Your task to perform on an android device: delete location history Image 0: 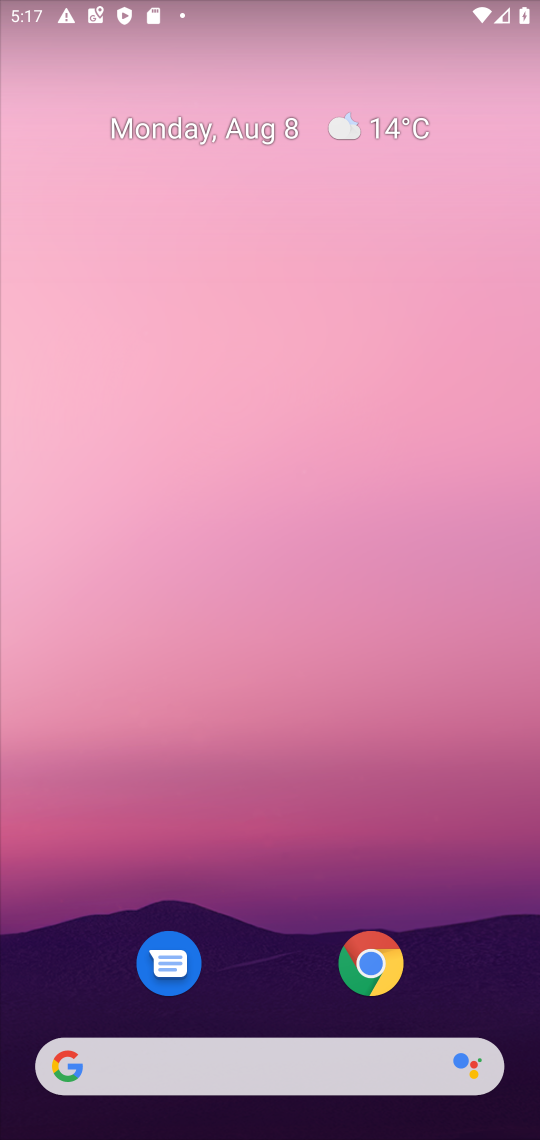
Step 0: drag from (268, 854) to (254, 156)
Your task to perform on an android device: delete location history Image 1: 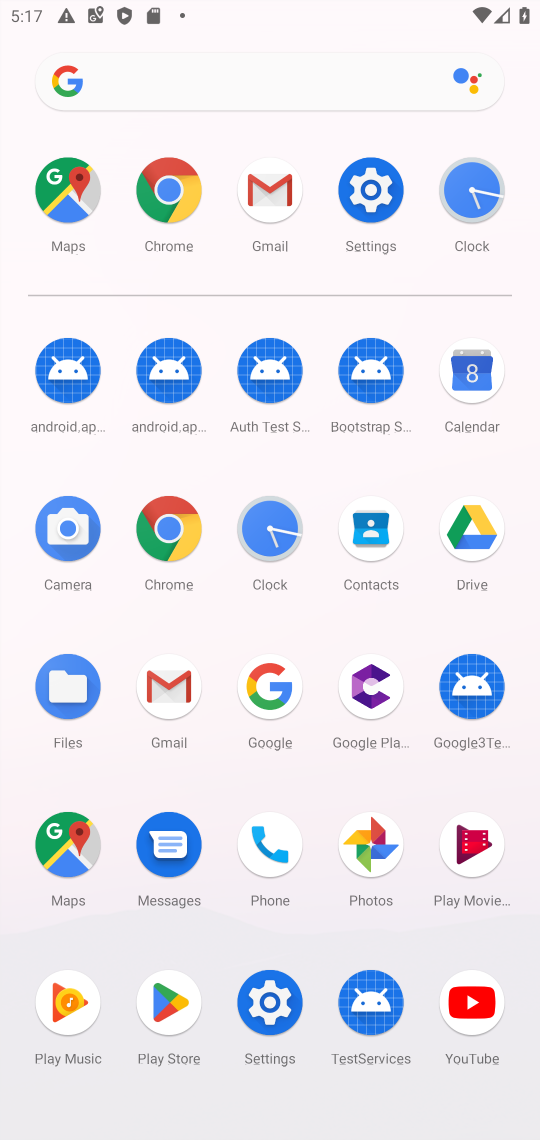
Step 1: click (67, 832)
Your task to perform on an android device: delete location history Image 2: 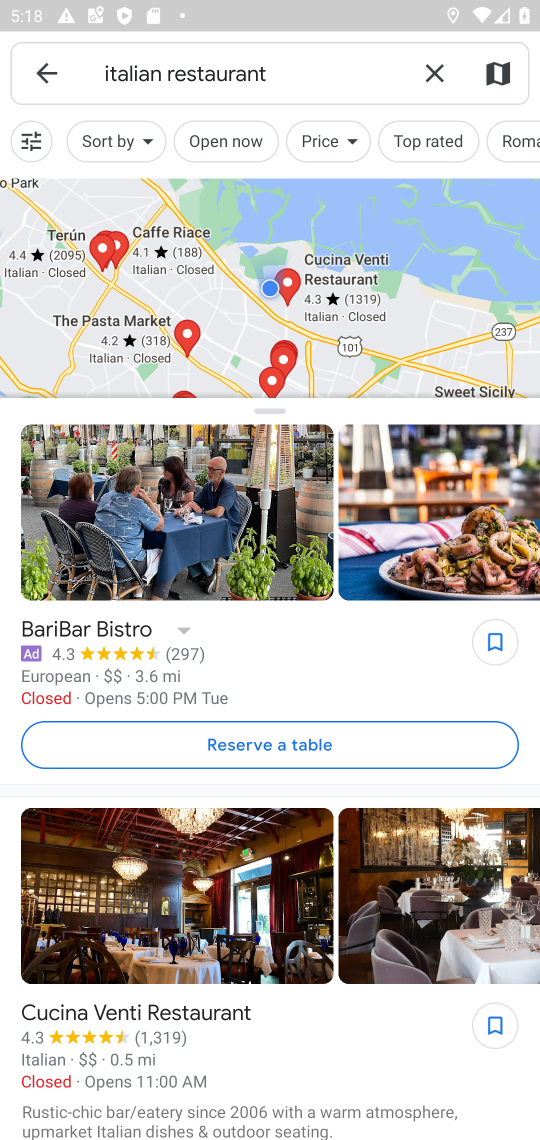
Step 2: click (42, 65)
Your task to perform on an android device: delete location history Image 3: 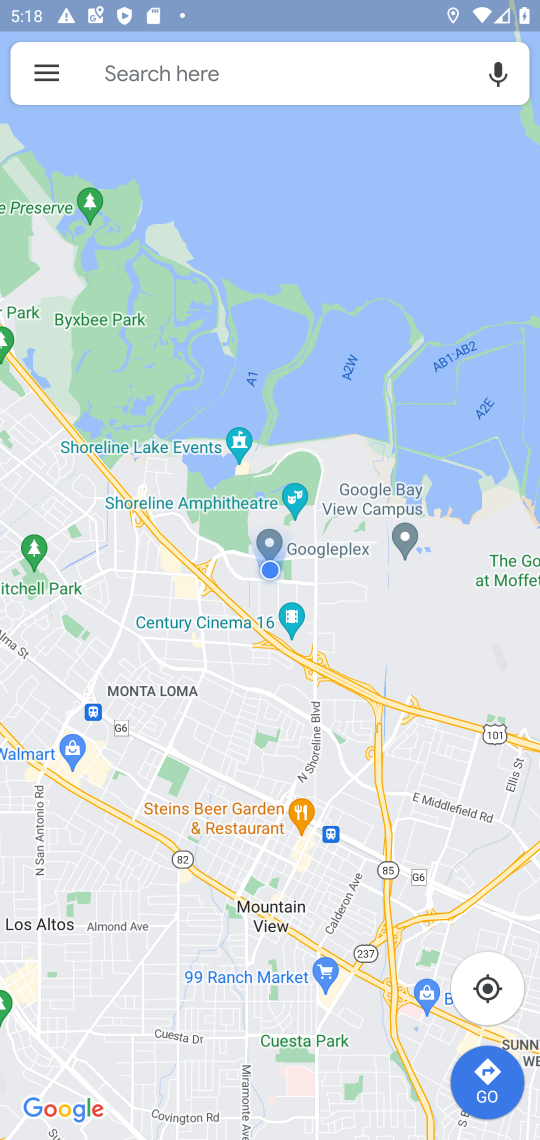
Step 3: click (41, 63)
Your task to perform on an android device: delete location history Image 4: 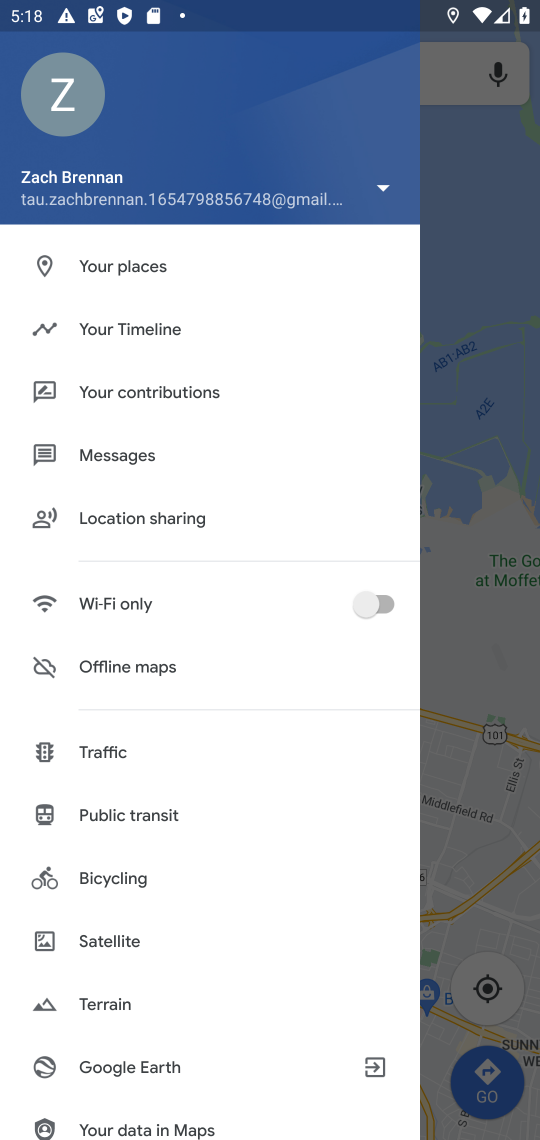
Step 4: click (97, 343)
Your task to perform on an android device: delete location history Image 5: 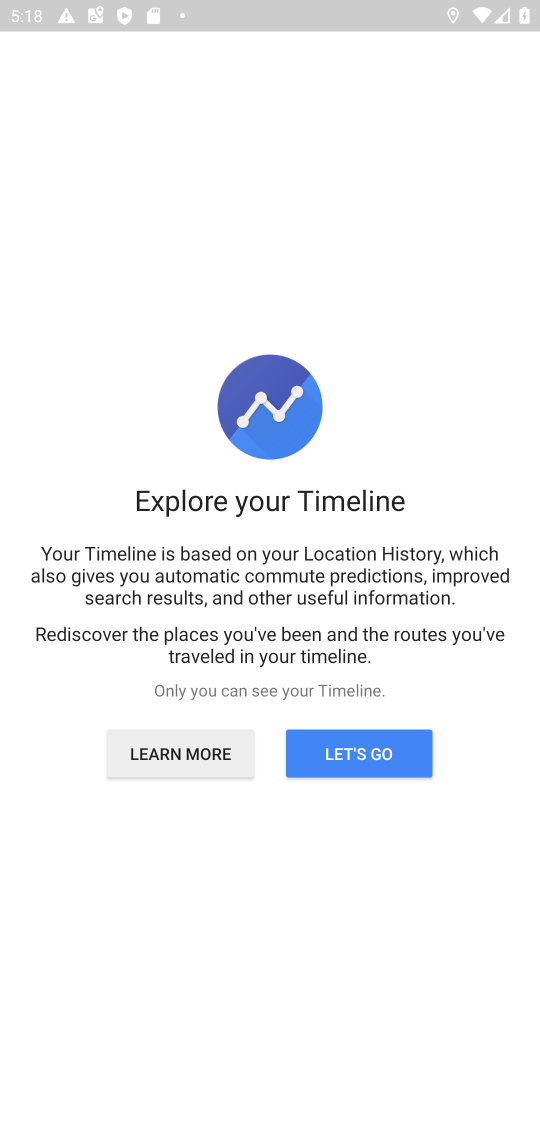
Step 5: click (346, 733)
Your task to perform on an android device: delete location history Image 6: 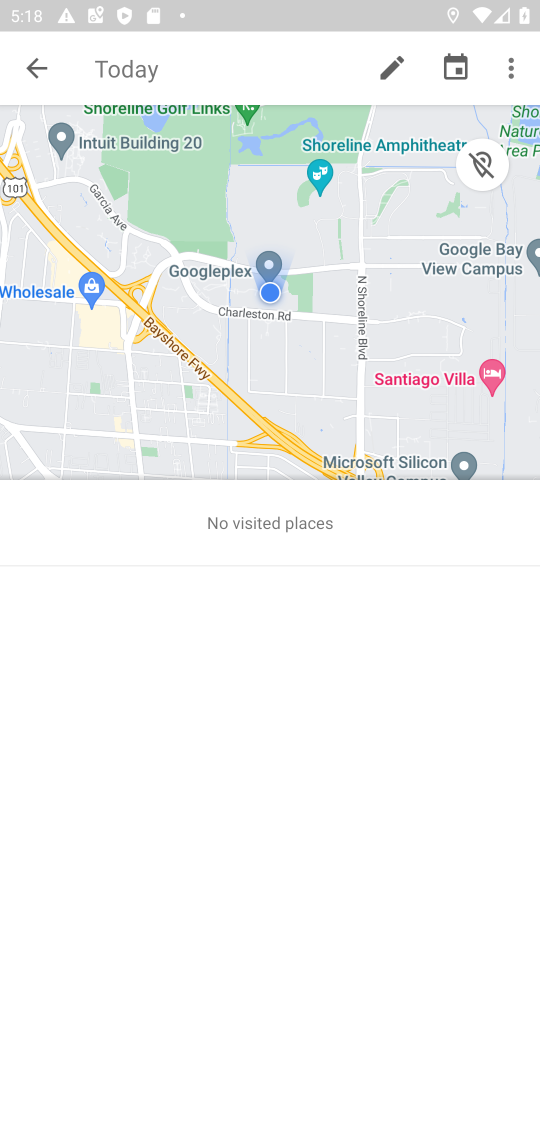
Step 6: click (505, 79)
Your task to perform on an android device: delete location history Image 7: 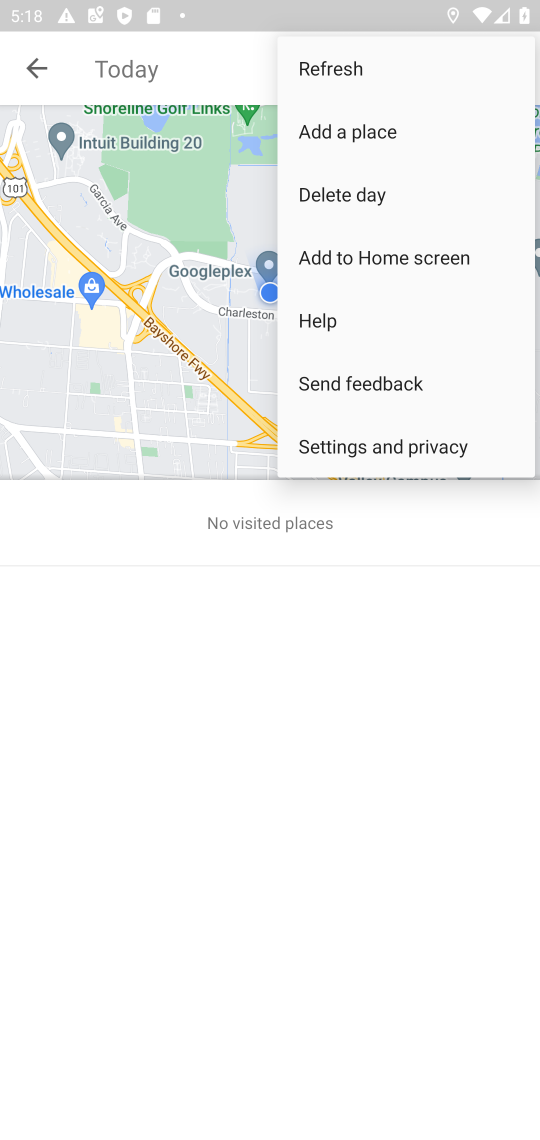
Step 7: click (347, 455)
Your task to perform on an android device: delete location history Image 8: 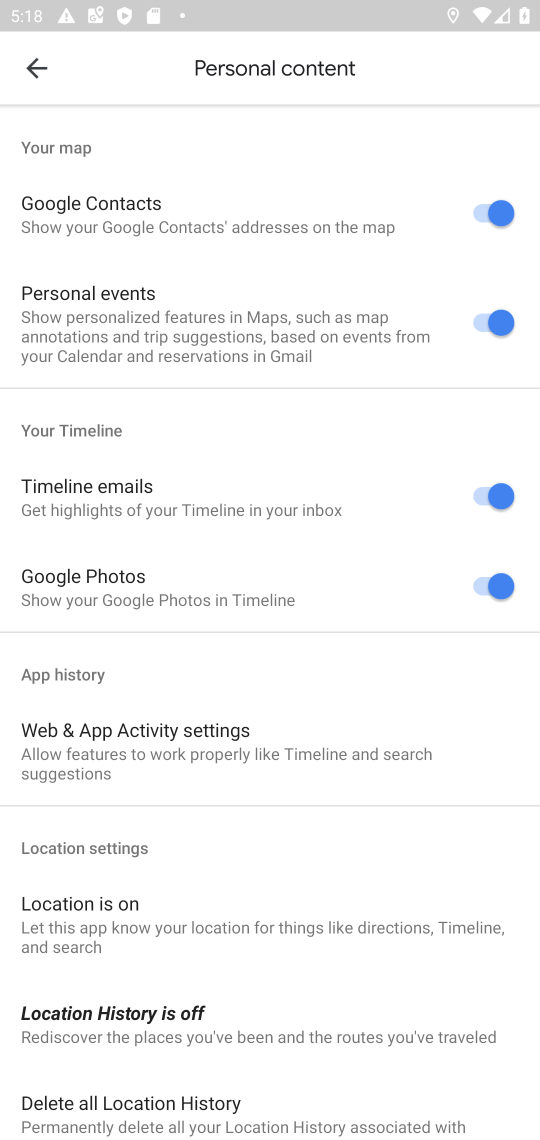
Step 8: click (163, 1097)
Your task to perform on an android device: delete location history Image 9: 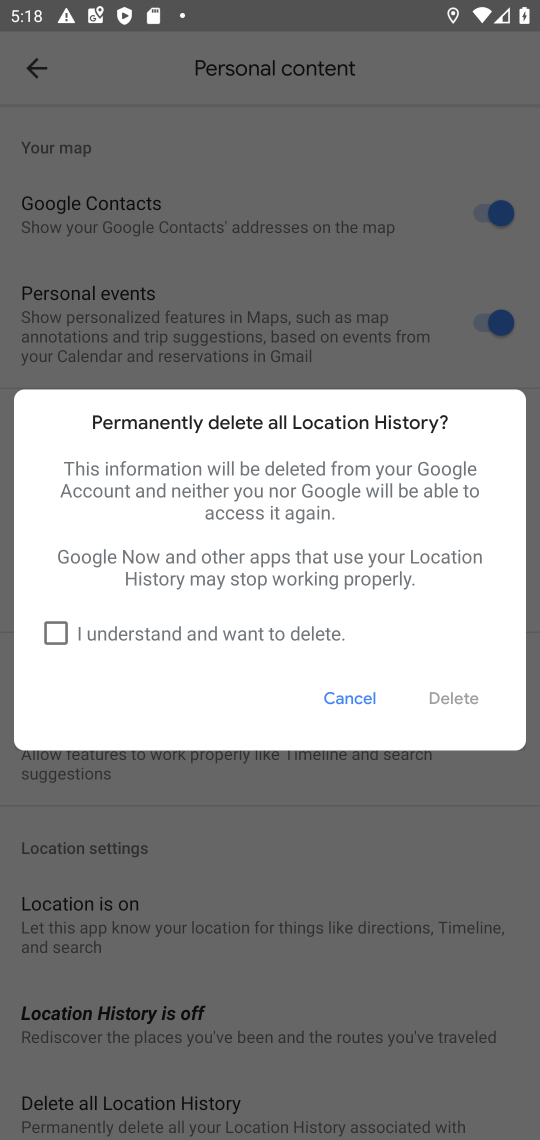
Step 9: click (84, 645)
Your task to perform on an android device: delete location history Image 10: 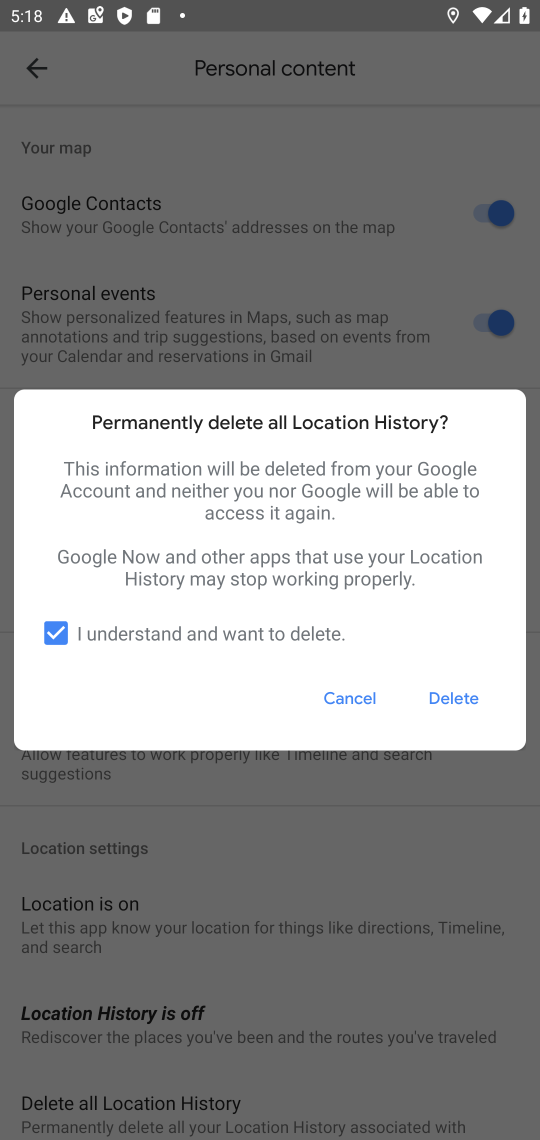
Step 10: click (471, 703)
Your task to perform on an android device: delete location history Image 11: 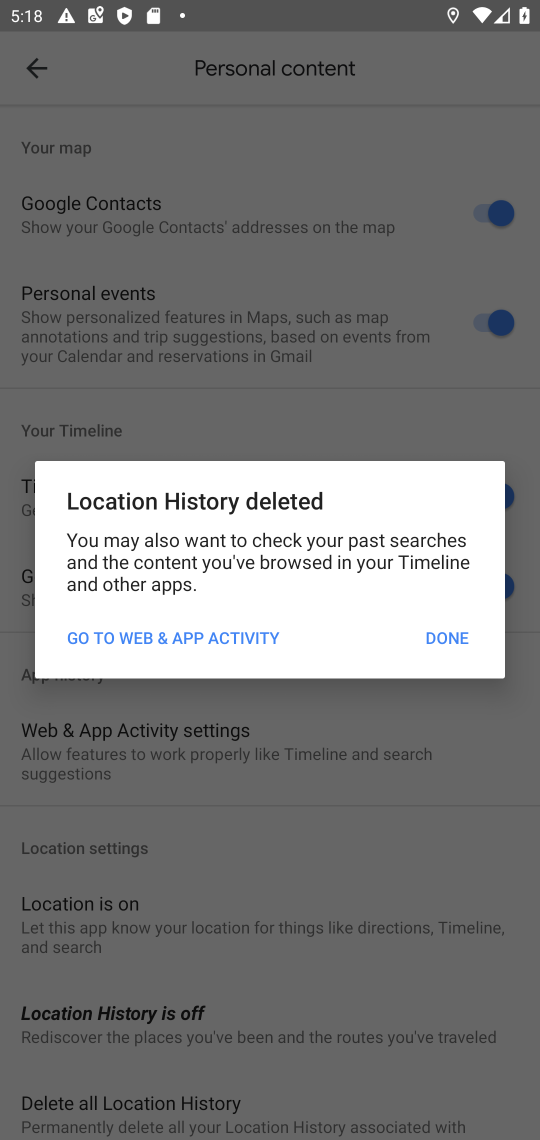
Step 11: task complete